Your task to perform on an android device: manage bookmarks in the chrome app Image 0: 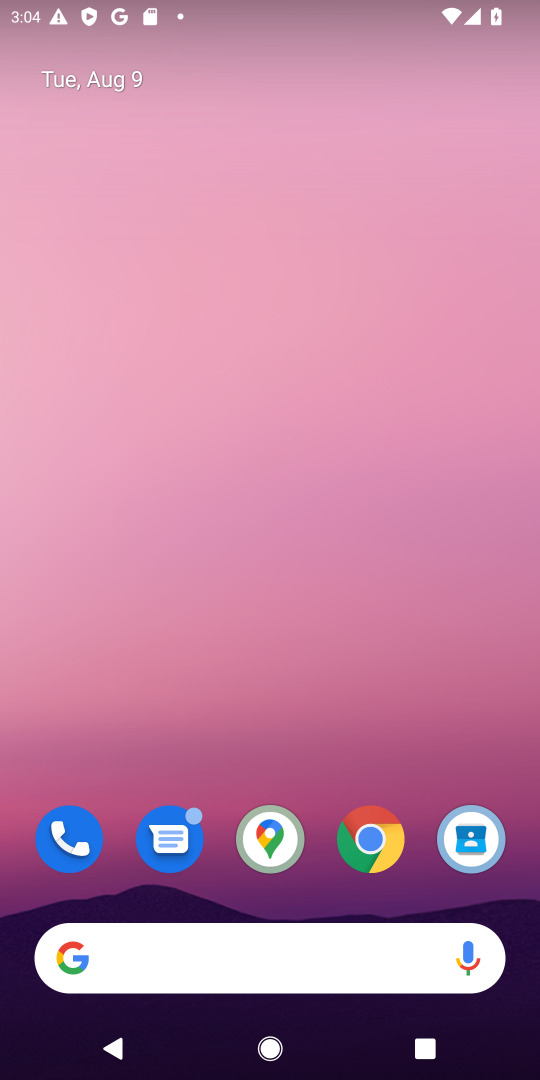
Step 0: click (358, 819)
Your task to perform on an android device: manage bookmarks in the chrome app Image 1: 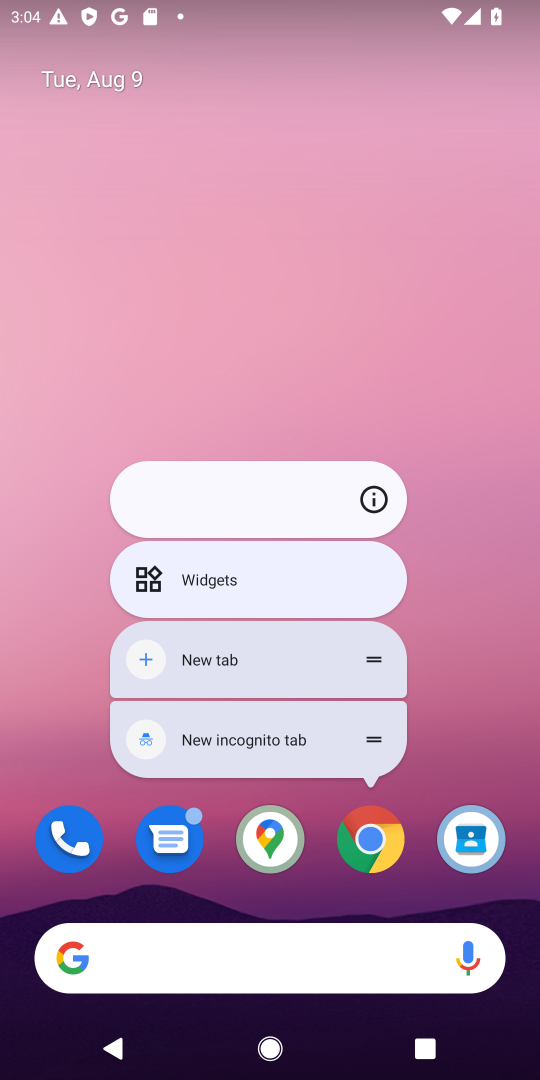
Step 1: click (337, 836)
Your task to perform on an android device: manage bookmarks in the chrome app Image 2: 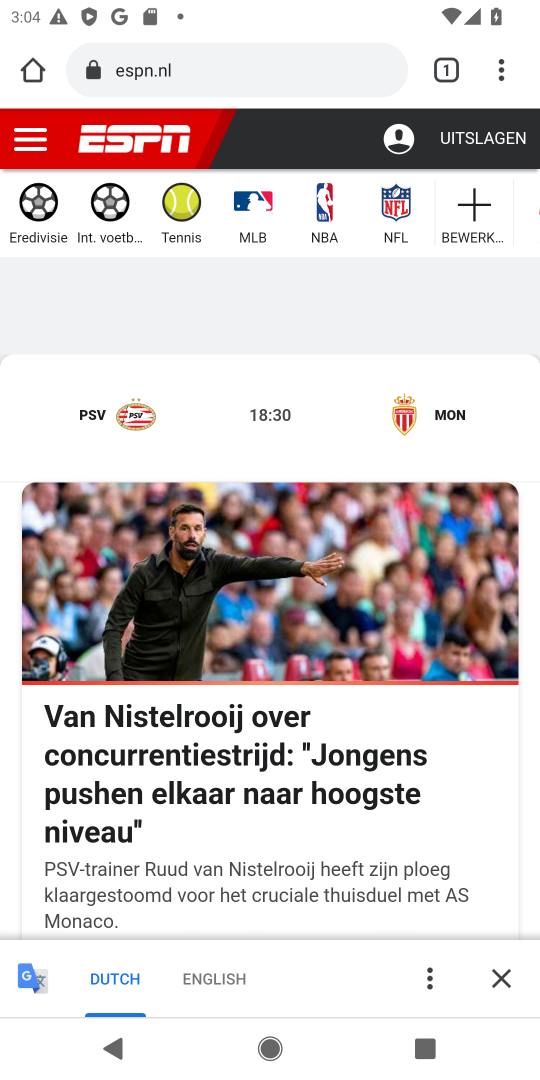
Step 2: task complete